Your task to perform on an android device: What is the recent news? Image 0: 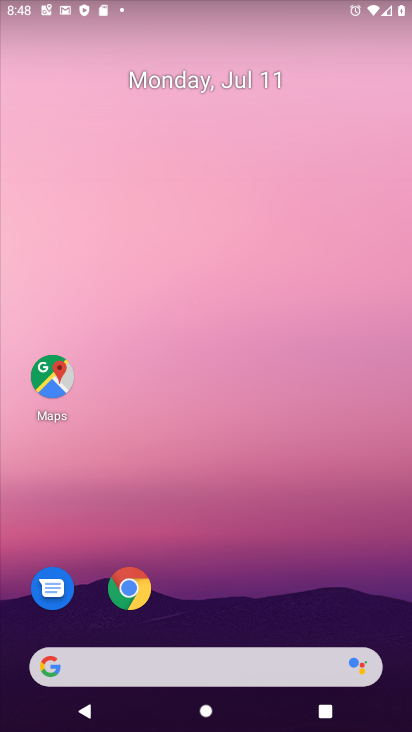
Step 0: click (168, 670)
Your task to perform on an android device: What is the recent news? Image 1: 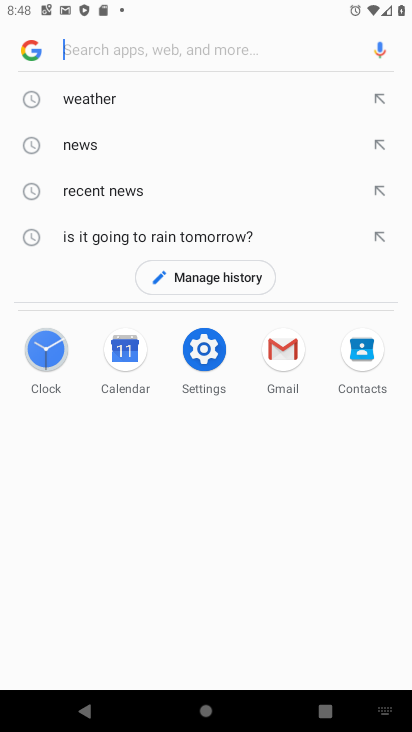
Step 1: click (96, 188)
Your task to perform on an android device: What is the recent news? Image 2: 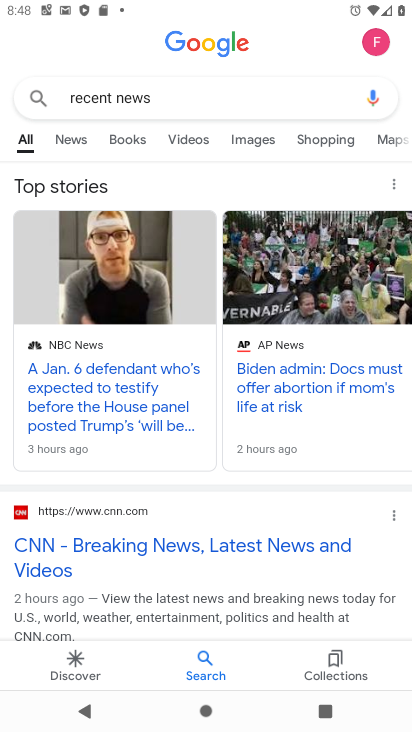
Step 2: task complete